Your task to perform on an android device: Open CNN.com Image 0: 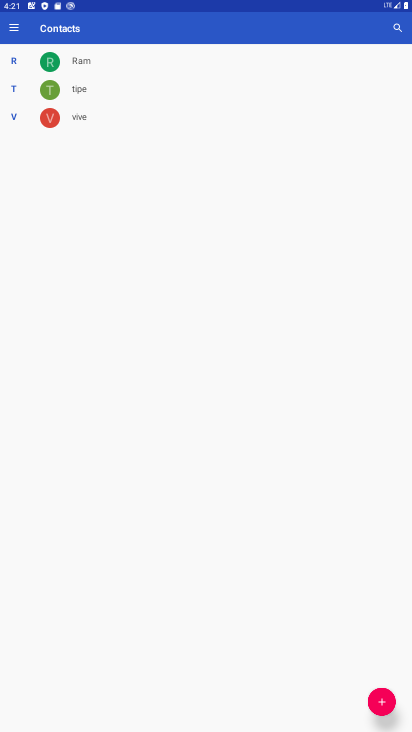
Step 0: press home button
Your task to perform on an android device: Open CNN.com Image 1: 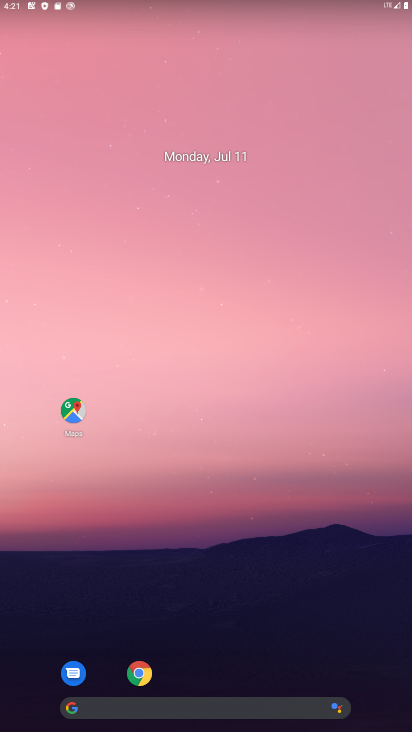
Step 1: click (139, 670)
Your task to perform on an android device: Open CNN.com Image 2: 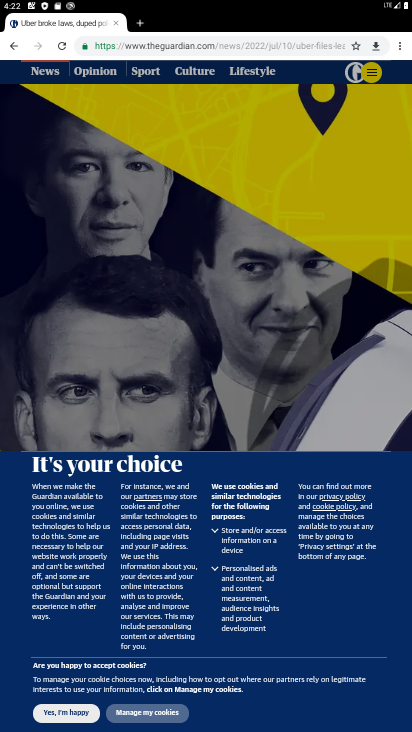
Step 2: click (315, 46)
Your task to perform on an android device: Open CNN.com Image 3: 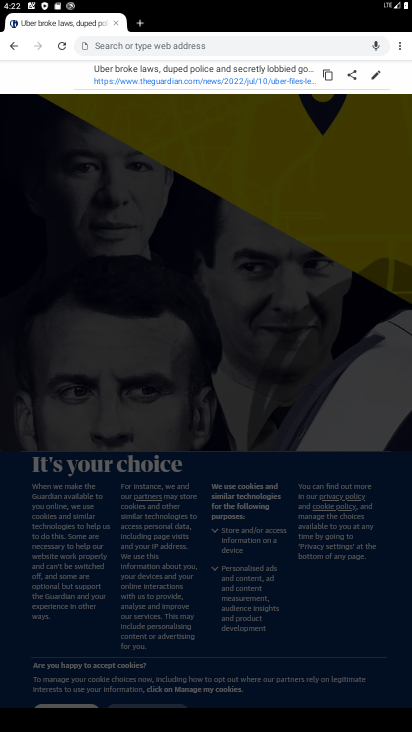
Step 3: type "CNN.com"
Your task to perform on an android device: Open CNN.com Image 4: 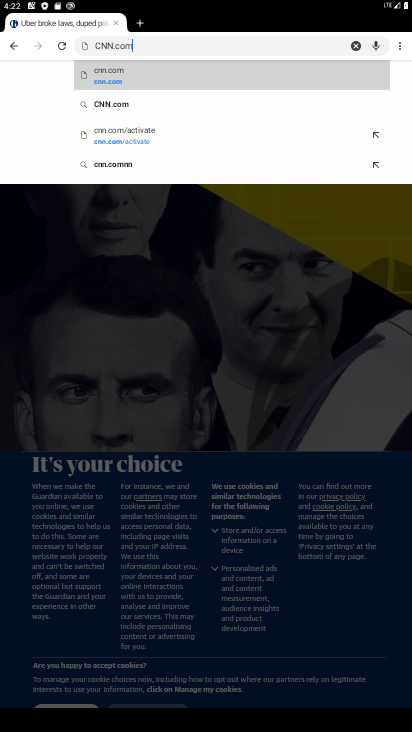
Step 4: click (102, 82)
Your task to perform on an android device: Open CNN.com Image 5: 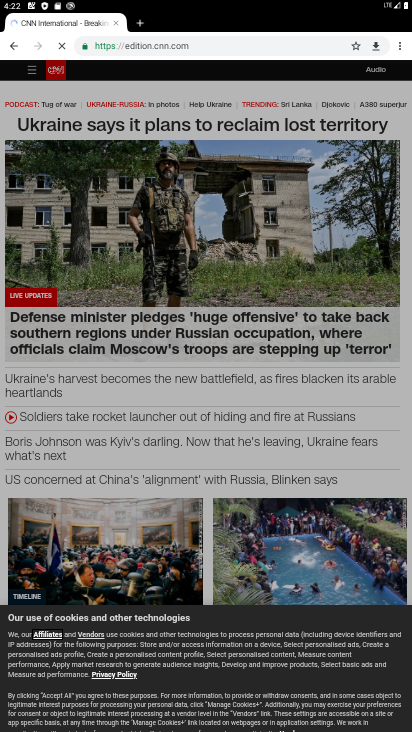
Step 5: task complete